Your task to perform on an android device: turn on translation in the chrome app Image 0: 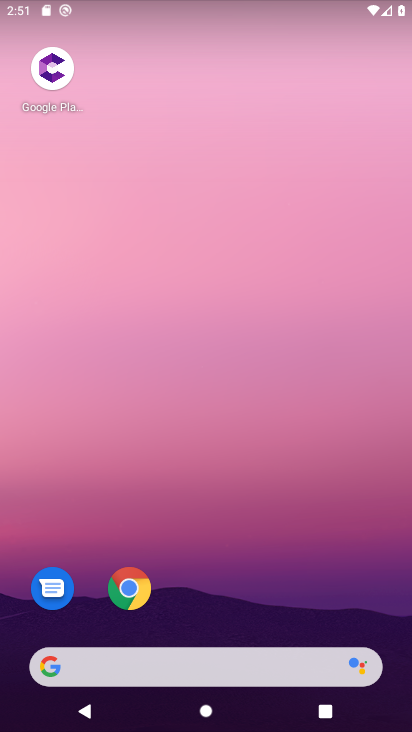
Step 0: drag from (255, 609) to (241, 6)
Your task to perform on an android device: turn on translation in the chrome app Image 1: 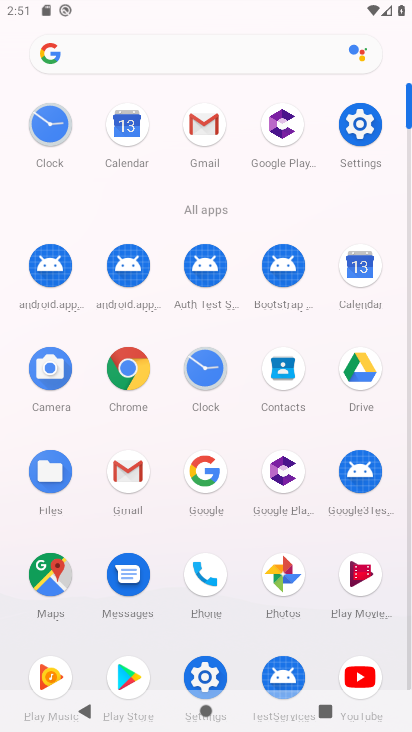
Step 1: click (121, 360)
Your task to perform on an android device: turn on translation in the chrome app Image 2: 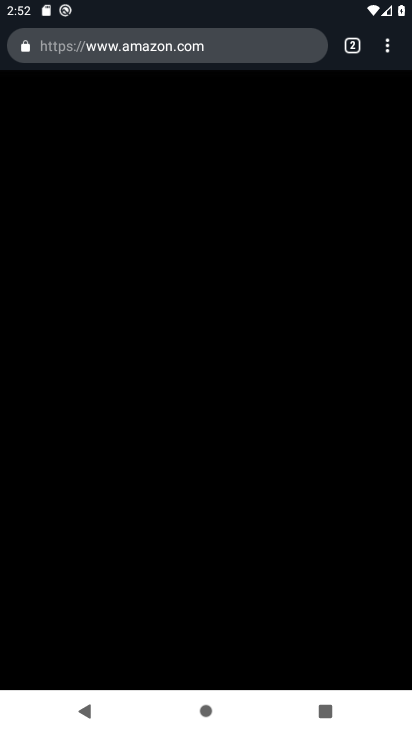
Step 2: click (390, 51)
Your task to perform on an android device: turn on translation in the chrome app Image 3: 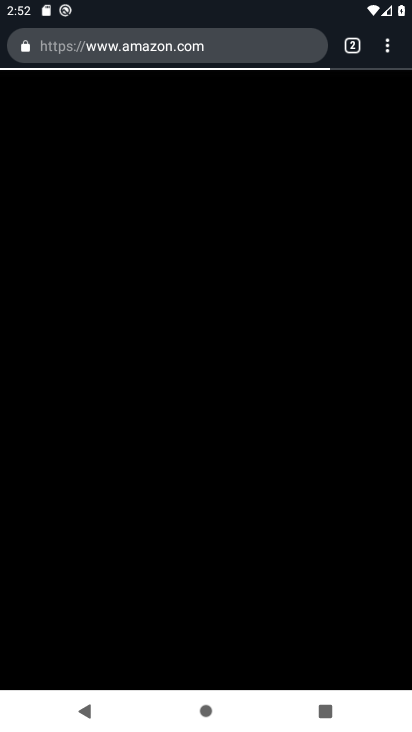
Step 3: drag from (384, 48) to (220, 557)
Your task to perform on an android device: turn on translation in the chrome app Image 4: 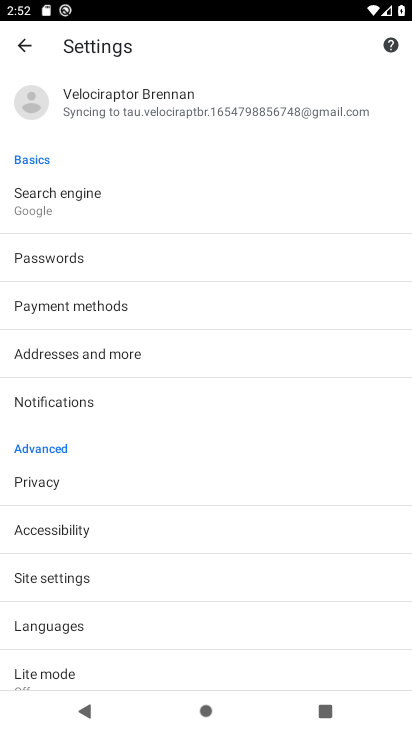
Step 4: click (74, 621)
Your task to perform on an android device: turn on translation in the chrome app Image 5: 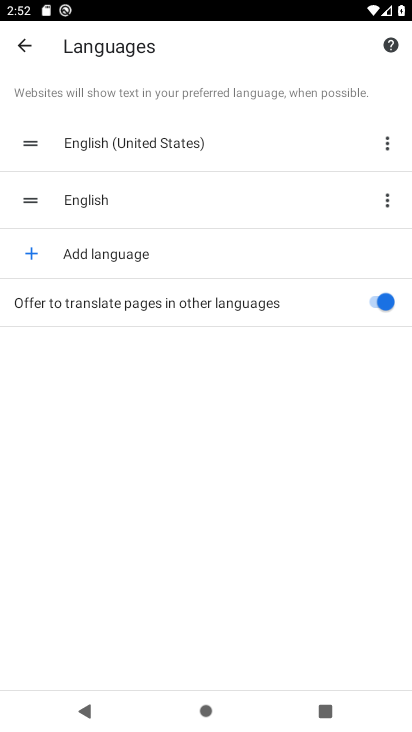
Step 5: task complete